Your task to perform on an android device: Open Google Maps and go to "Timeline" Image 0: 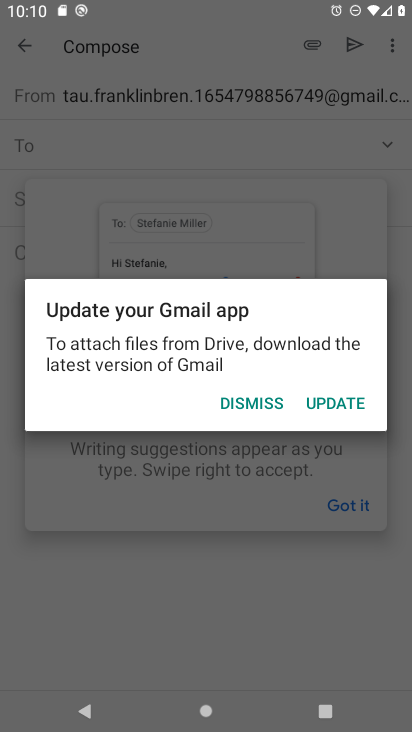
Step 0: press home button
Your task to perform on an android device: Open Google Maps and go to "Timeline" Image 1: 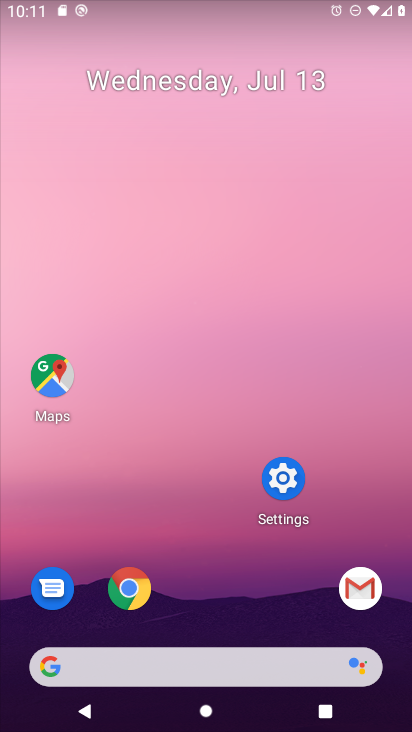
Step 1: click (47, 392)
Your task to perform on an android device: Open Google Maps and go to "Timeline" Image 2: 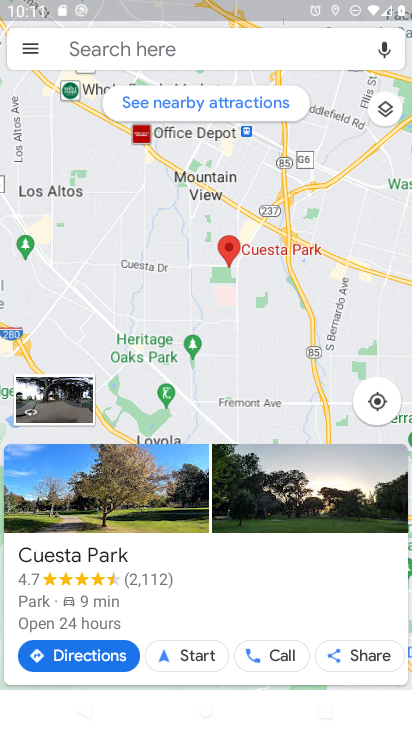
Step 2: click (35, 53)
Your task to perform on an android device: Open Google Maps and go to "Timeline" Image 3: 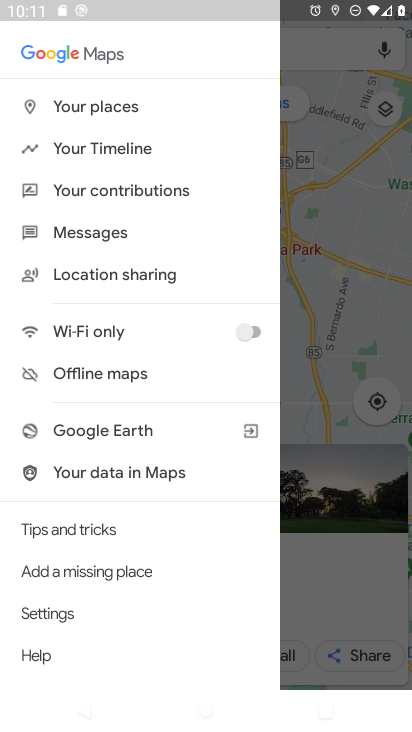
Step 3: click (90, 154)
Your task to perform on an android device: Open Google Maps and go to "Timeline" Image 4: 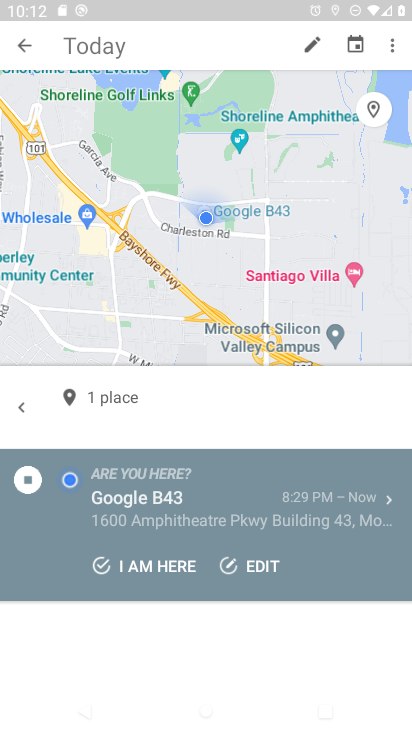
Step 4: task complete